Your task to perform on an android device: open wifi settings Image 0: 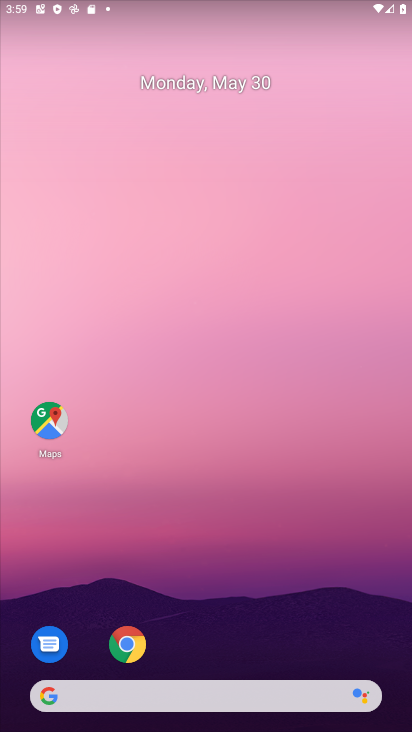
Step 0: drag from (258, 642) to (208, 95)
Your task to perform on an android device: open wifi settings Image 1: 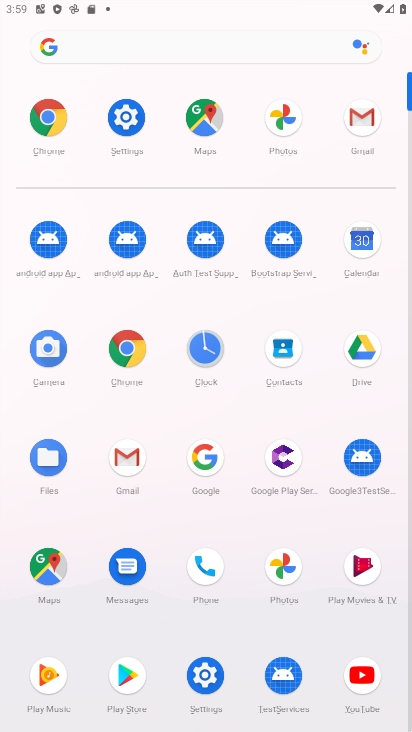
Step 1: click (121, 122)
Your task to perform on an android device: open wifi settings Image 2: 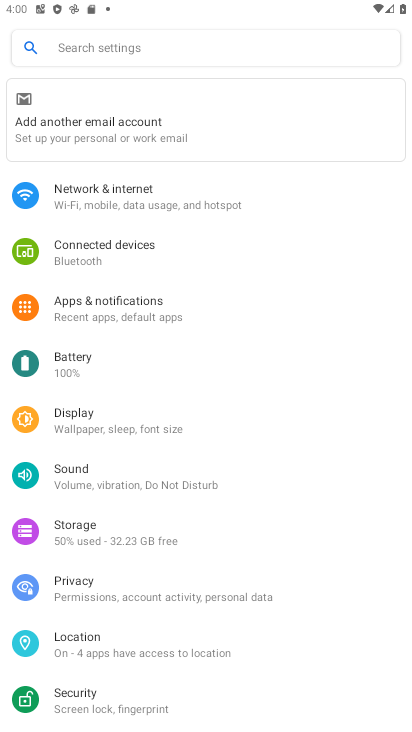
Step 2: click (75, 185)
Your task to perform on an android device: open wifi settings Image 3: 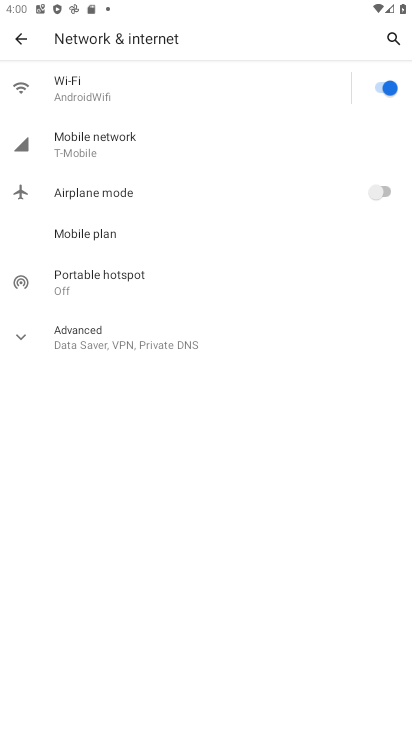
Step 3: task complete